Your task to perform on an android device: turn pop-ups off in chrome Image 0: 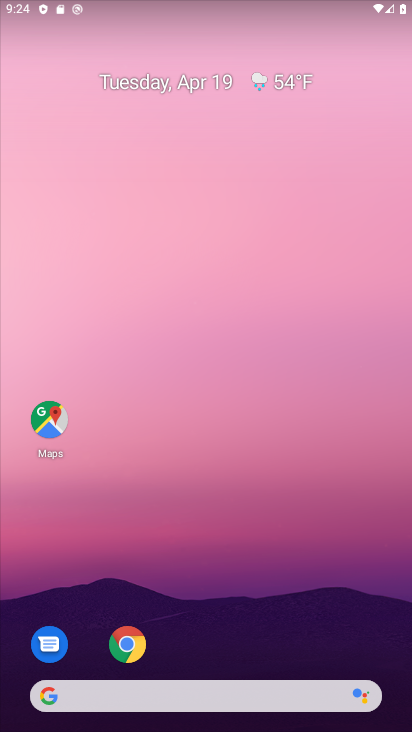
Step 0: drag from (272, 596) to (328, 140)
Your task to perform on an android device: turn pop-ups off in chrome Image 1: 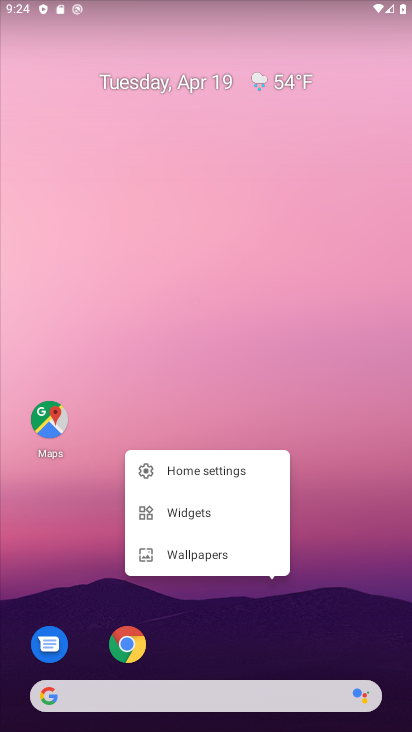
Step 1: click (325, 632)
Your task to perform on an android device: turn pop-ups off in chrome Image 2: 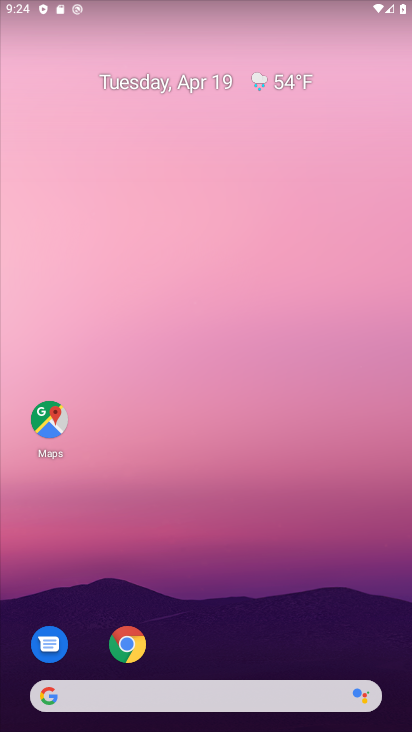
Step 2: click (134, 638)
Your task to perform on an android device: turn pop-ups off in chrome Image 3: 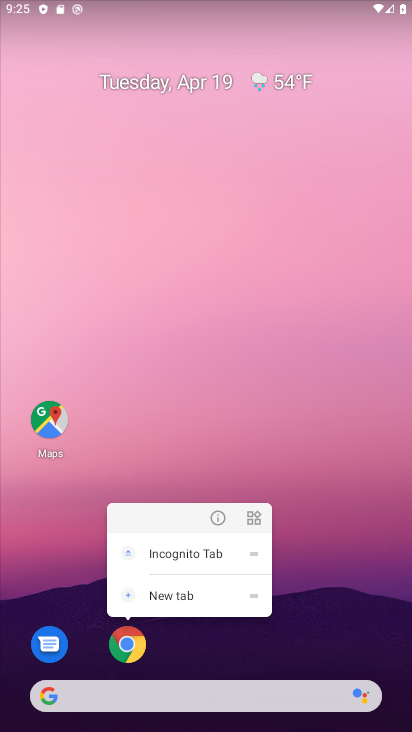
Step 3: click (121, 652)
Your task to perform on an android device: turn pop-ups off in chrome Image 4: 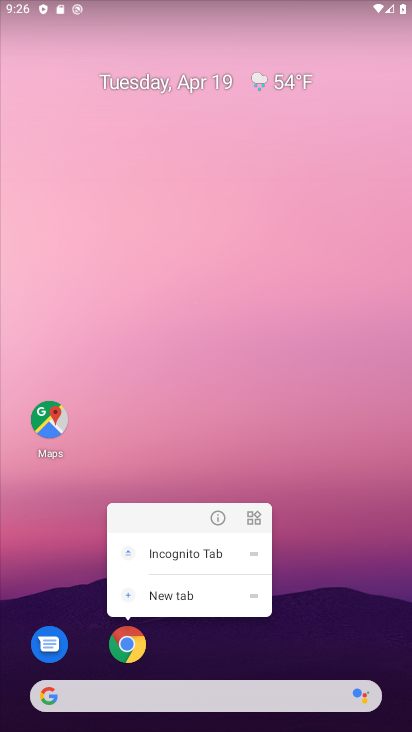
Step 4: click (137, 650)
Your task to perform on an android device: turn pop-ups off in chrome Image 5: 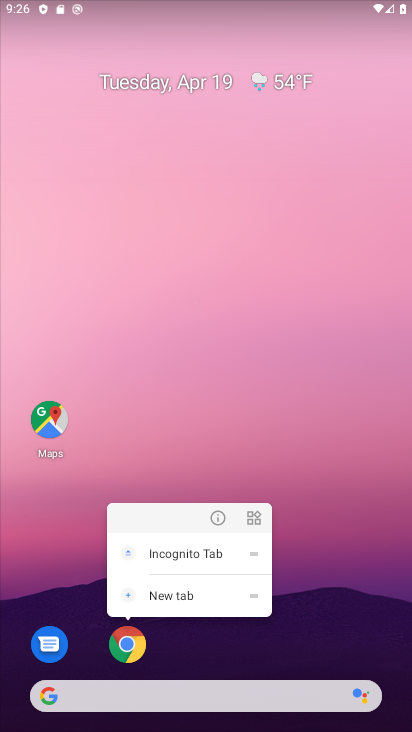
Step 5: click (137, 650)
Your task to perform on an android device: turn pop-ups off in chrome Image 6: 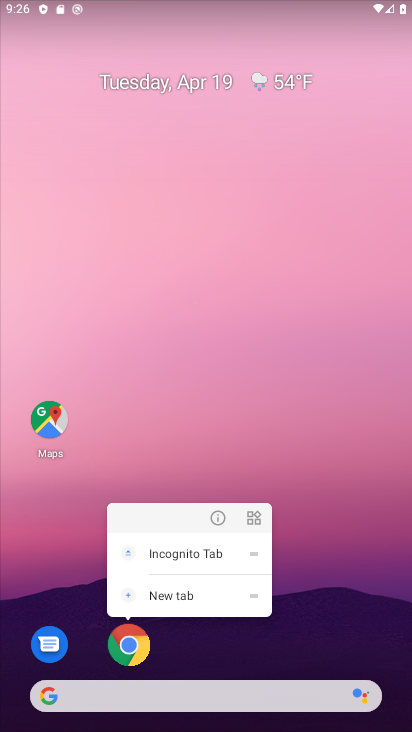
Step 6: click (137, 650)
Your task to perform on an android device: turn pop-ups off in chrome Image 7: 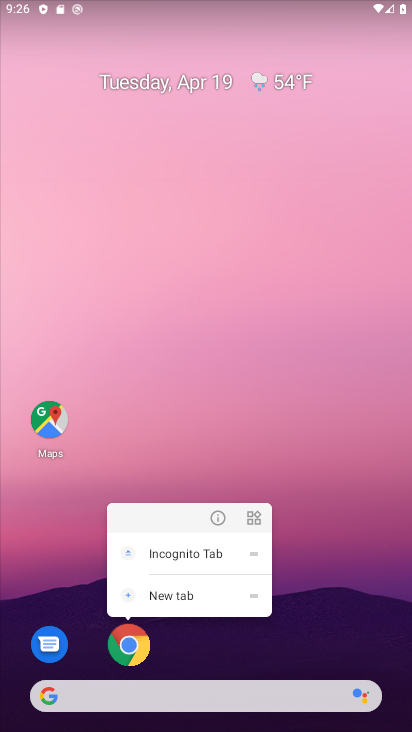
Step 7: click (137, 650)
Your task to perform on an android device: turn pop-ups off in chrome Image 8: 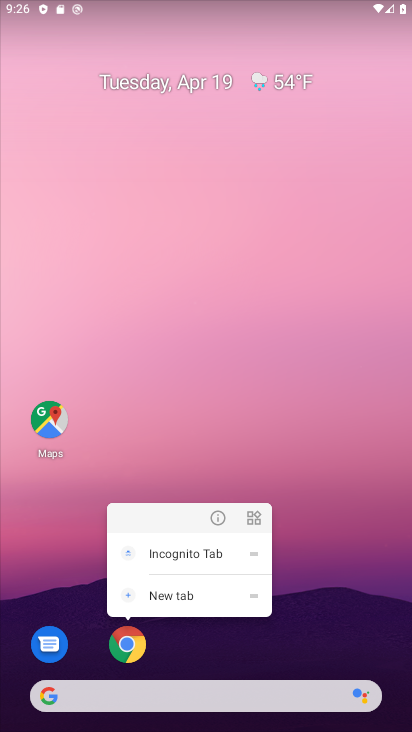
Step 8: click (137, 650)
Your task to perform on an android device: turn pop-ups off in chrome Image 9: 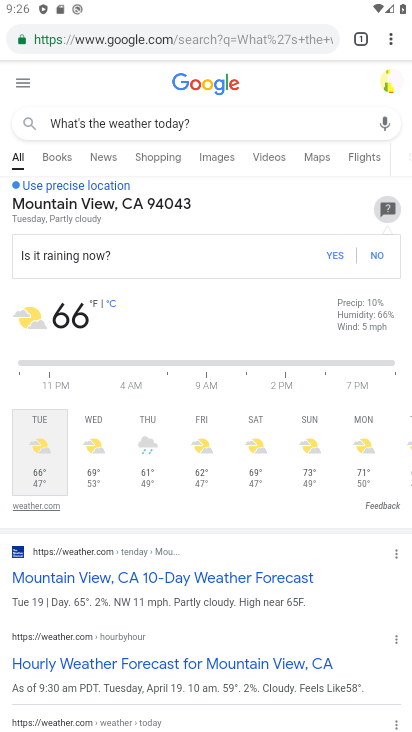
Step 9: drag from (384, 40) to (252, 426)
Your task to perform on an android device: turn pop-ups off in chrome Image 10: 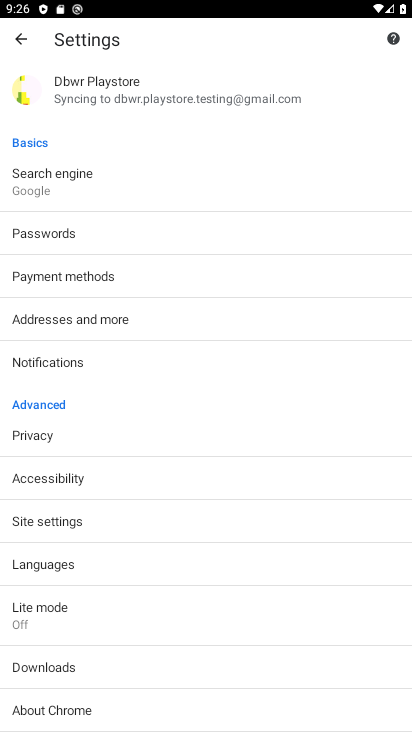
Step 10: drag from (193, 674) to (130, 349)
Your task to perform on an android device: turn pop-ups off in chrome Image 11: 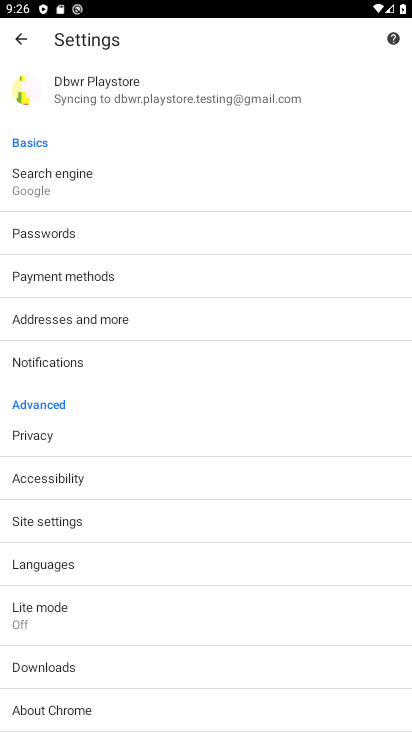
Step 11: click (44, 519)
Your task to perform on an android device: turn pop-ups off in chrome Image 12: 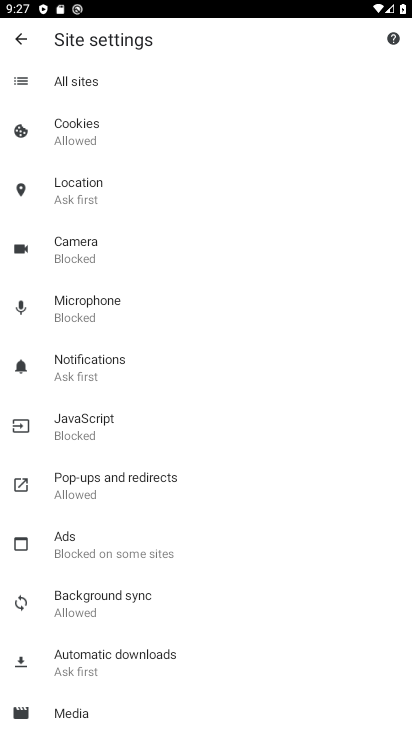
Step 12: click (87, 426)
Your task to perform on an android device: turn pop-ups off in chrome Image 13: 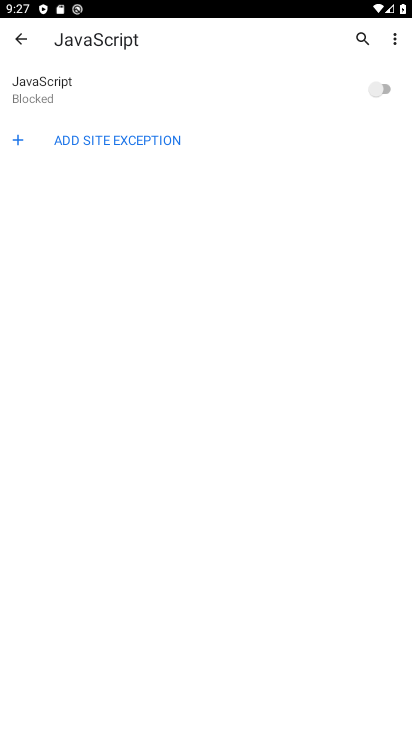
Step 13: click (28, 33)
Your task to perform on an android device: turn pop-ups off in chrome Image 14: 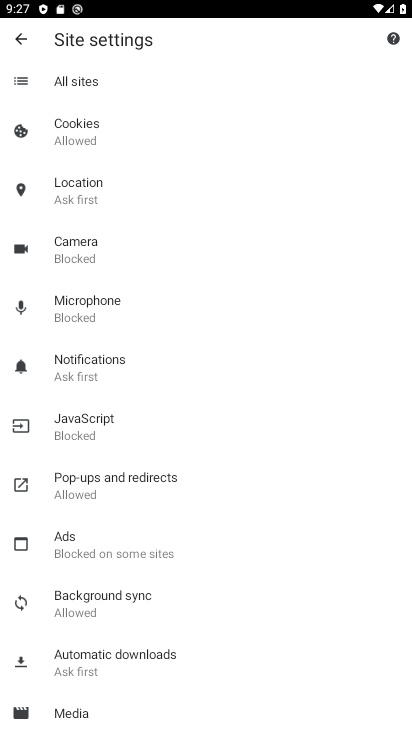
Step 14: click (70, 489)
Your task to perform on an android device: turn pop-ups off in chrome Image 15: 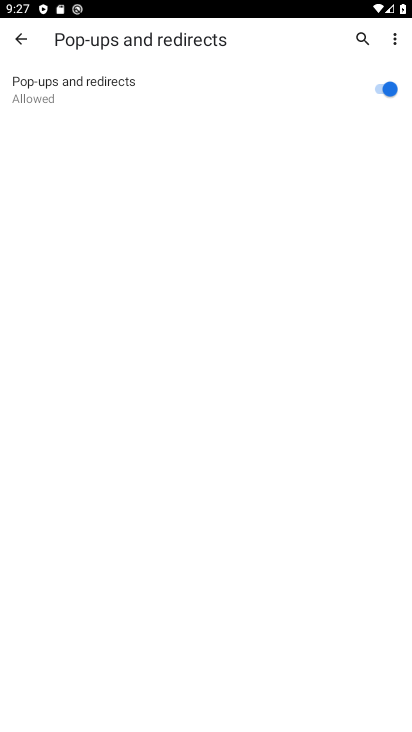
Step 15: click (221, 89)
Your task to perform on an android device: turn pop-ups off in chrome Image 16: 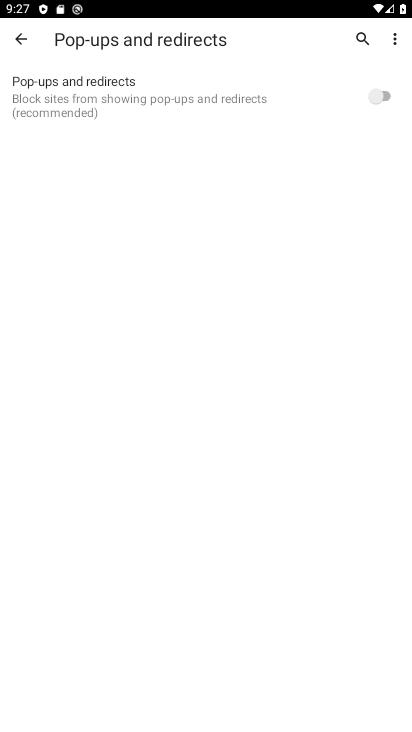
Step 16: task complete